Your task to perform on an android device: Open internet settings Image 0: 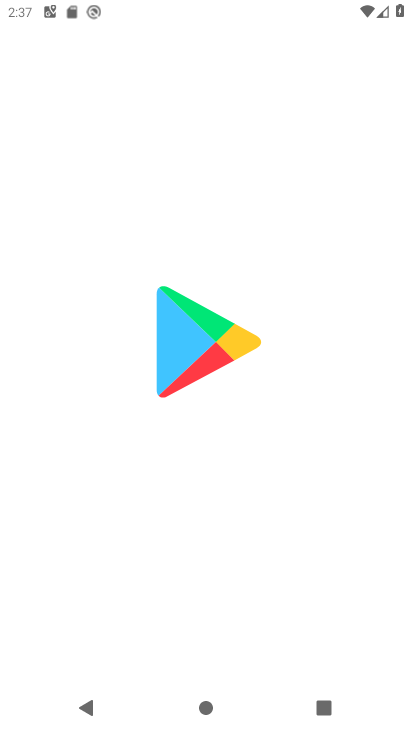
Step 0: drag from (165, 579) to (191, 326)
Your task to perform on an android device: Open internet settings Image 1: 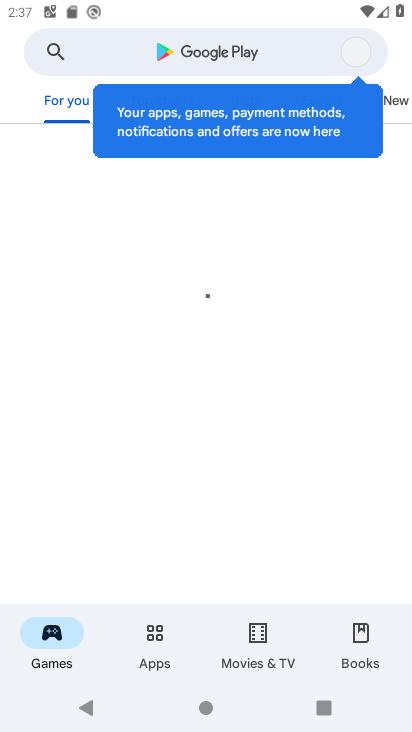
Step 1: press home button
Your task to perform on an android device: Open internet settings Image 2: 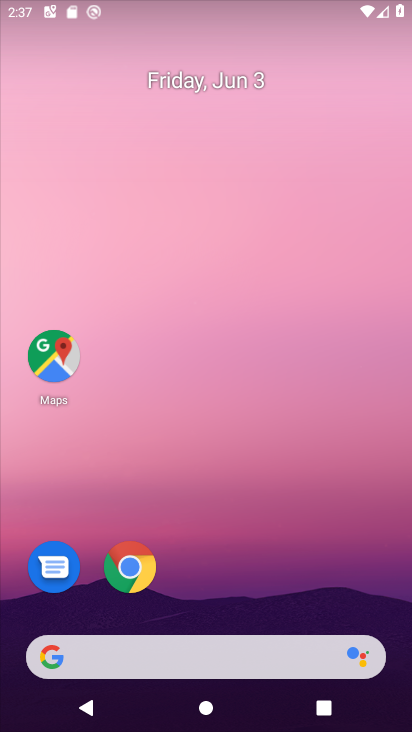
Step 2: drag from (268, 444) to (280, 272)
Your task to perform on an android device: Open internet settings Image 3: 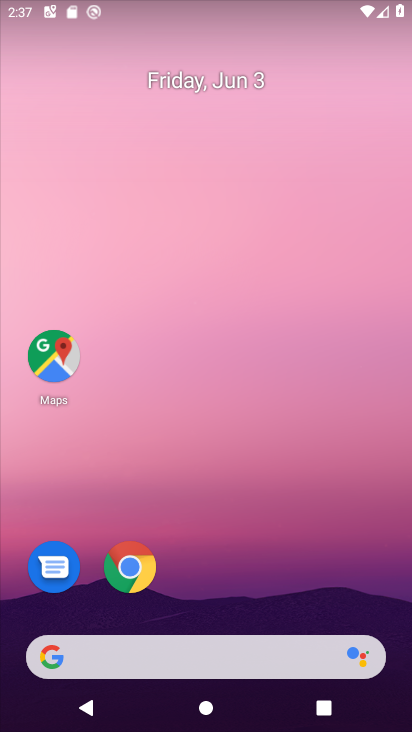
Step 3: drag from (202, 601) to (243, 217)
Your task to perform on an android device: Open internet settings Image 4: 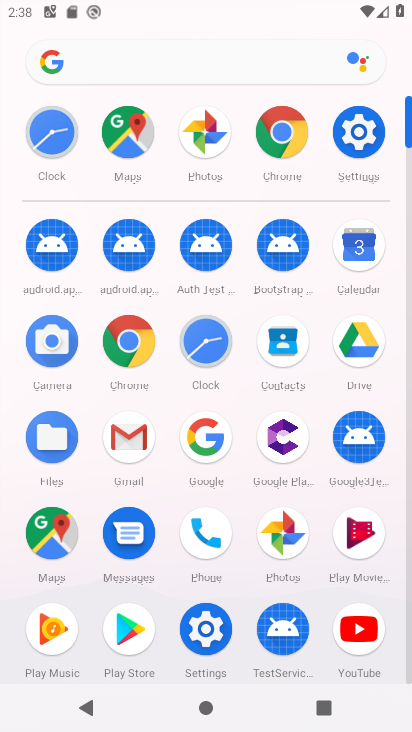
Step 4: click (350, 135)
Your task to perform on an android device: Open internet settings Image 5: 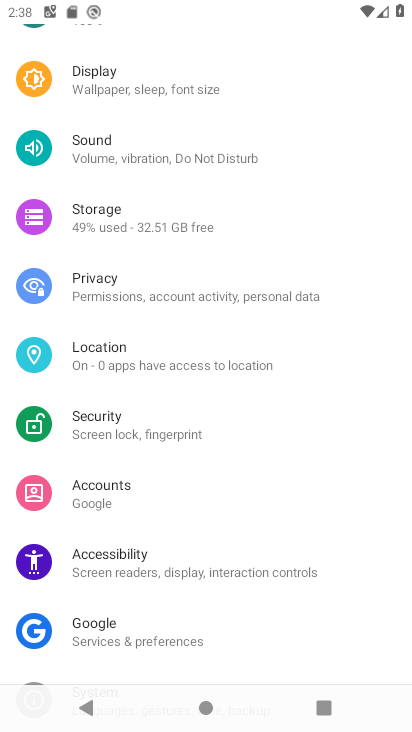
Step 5: drag from (130, 86) to (128, 513)
Your task to perform on an android device: Open internet settings Image 6: 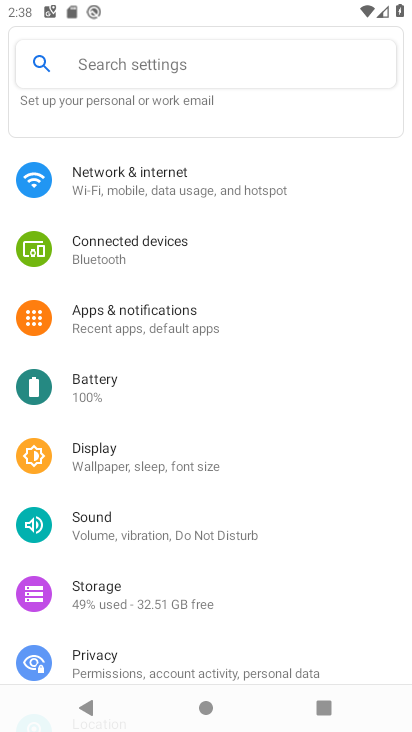
Step 6: click (134, 163)
Your task to perform on an android device: Open internet settings Image 7: 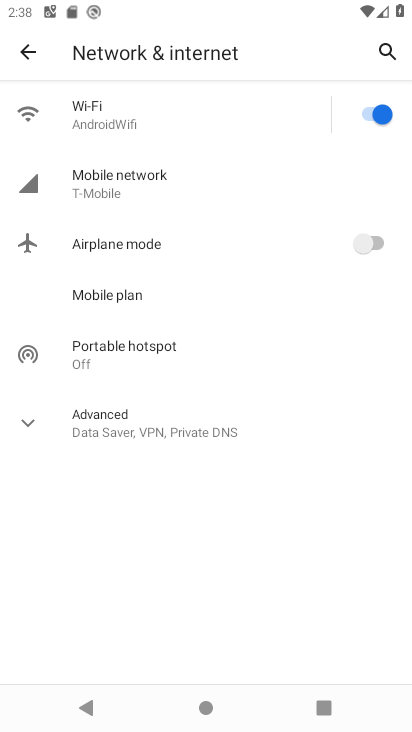
Step 7: click (91, 166)
Your task to perform on an android device: Open internet settings Image 8: 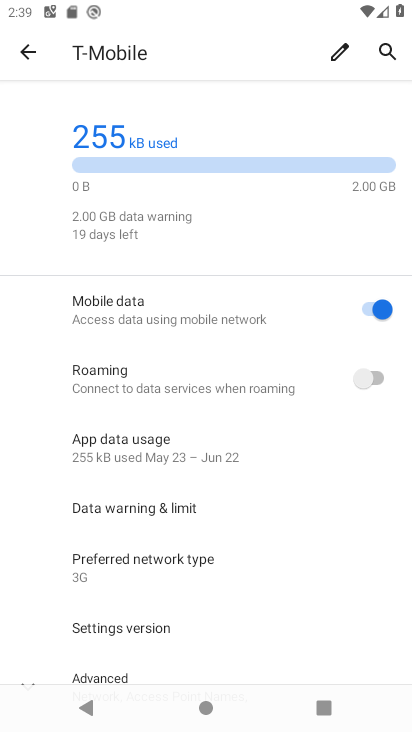
Step 8: task complete